Your task to perform on an android device: Open Yahoo.com Image 0: 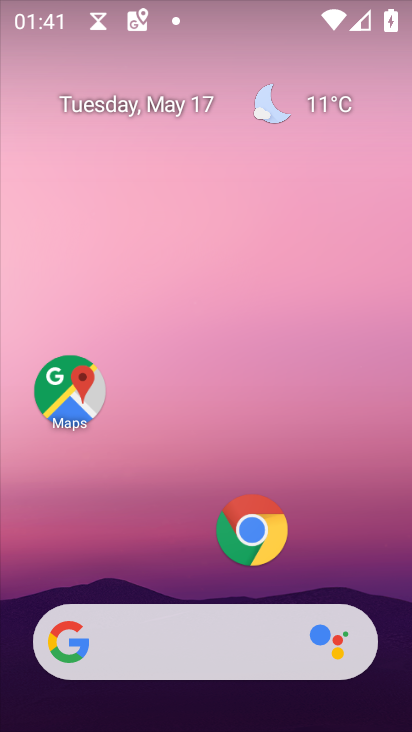
Step 0: click (256, 524)
Your task to perform on an android device: Open Yahoo.com Image 1: 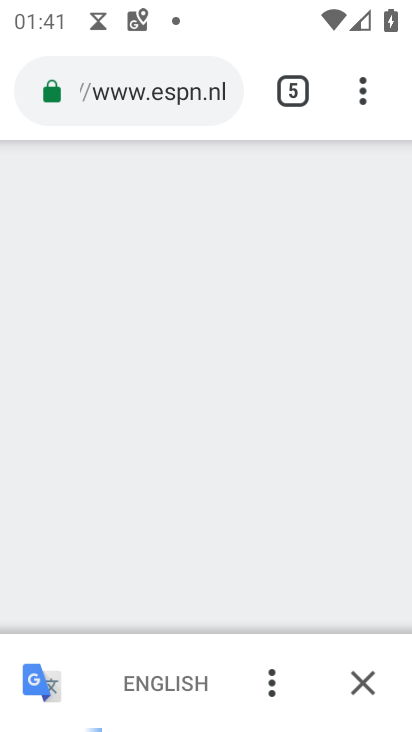
Step 1: click (294, 90)
Your task to perform on an android device: Open Yahoo.com Image 2: 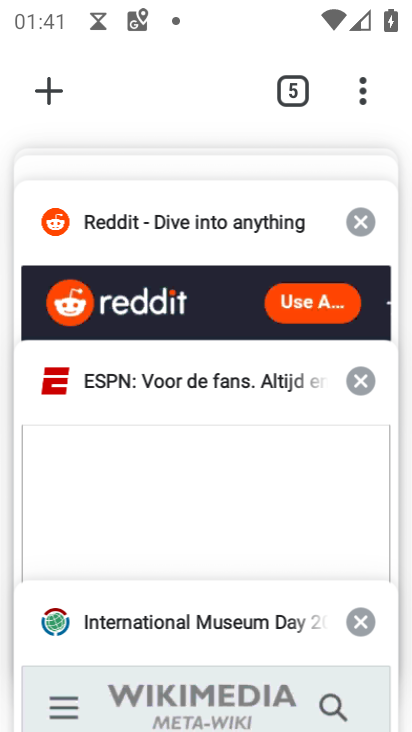
Step 2: drag from (213, 240) to (222, 491)
Your task to perform on an android device: Open Yahoo.com Image 3: 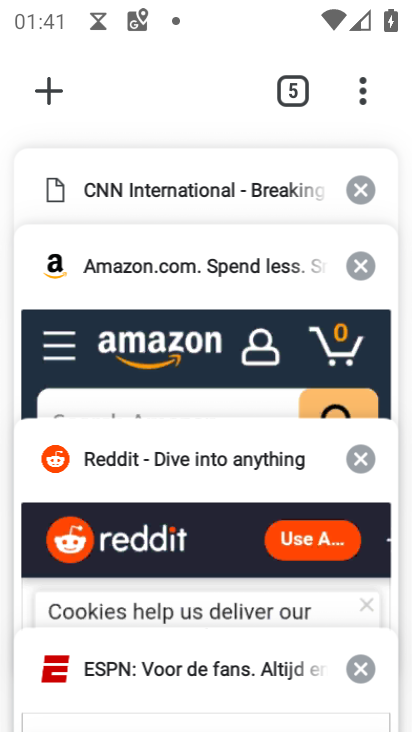
Step 3: click (51, 97)
Your task to perform on an android device: Open Yahoo.com Image 4: 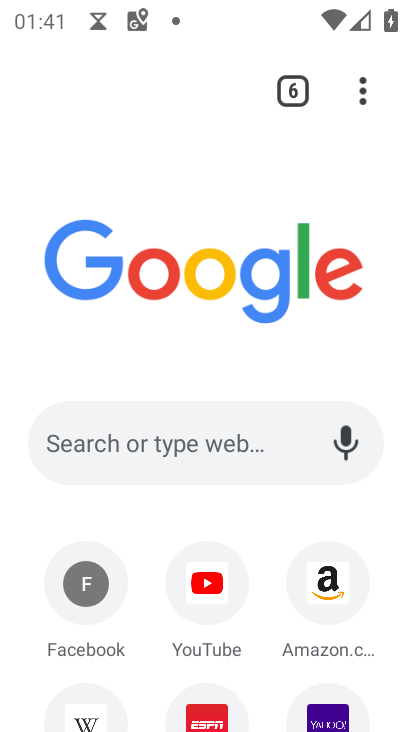
Step 4: click (323, 717)
Your task to perform on an android device: Open Yahoo.com Image 5: 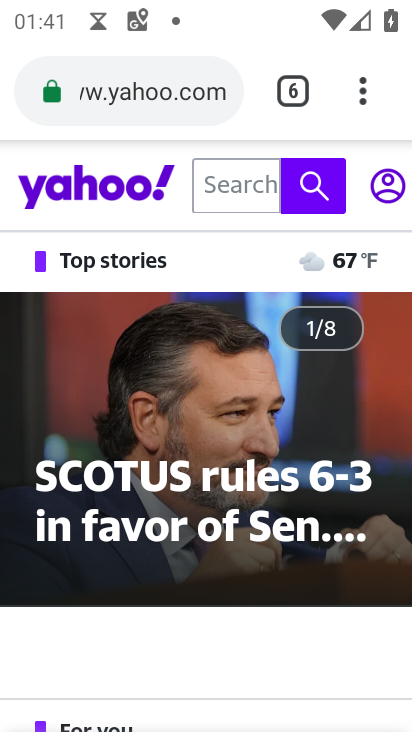
Step 5: task complete